Your task to perform on an android device: read, delete, or share a saved page in the chrome app Image 0: 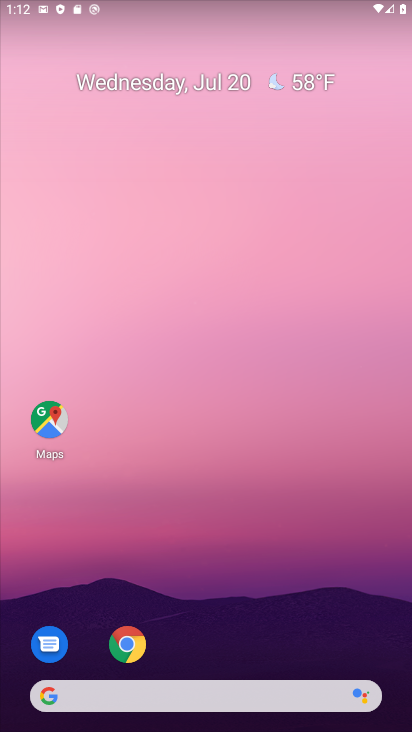
Step 0: click (129, 645)
Your task to perform on an android device: read, delete, or share a saved page in the chrome app Image 1: 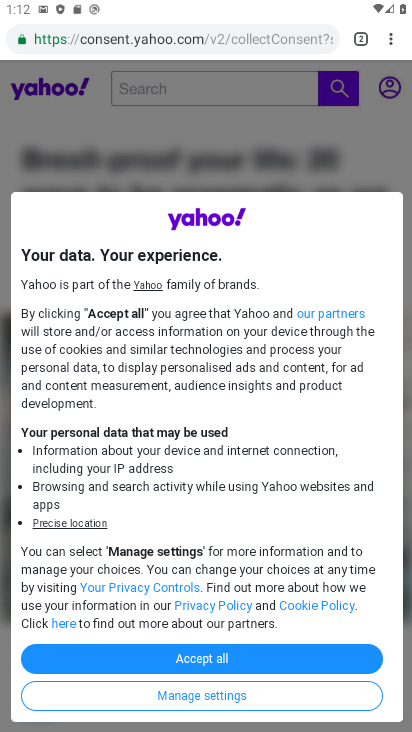
Step 1: click (385, 36)
Your task to perform on an android device: read, delete, or share a saved page in the chrome app Image 2: 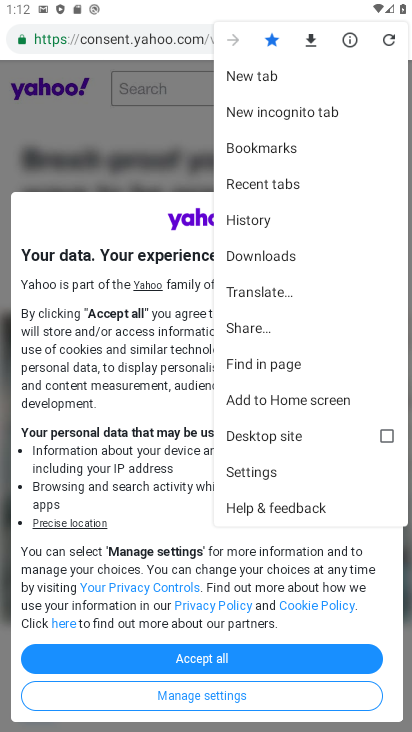
Step 2: click (250, 257)
Your task to perform on an android device: read, delete, or share a saved page in the chrome app Image 3: 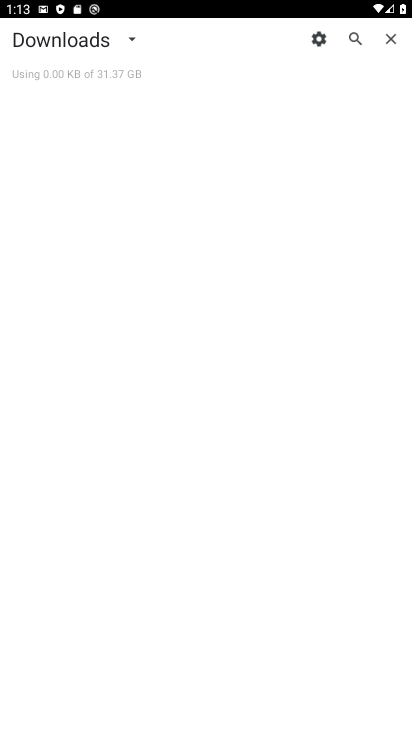
Step 3: task complete